Your task to perform on an android device: stop showing notifications on the lock screen Image 0: 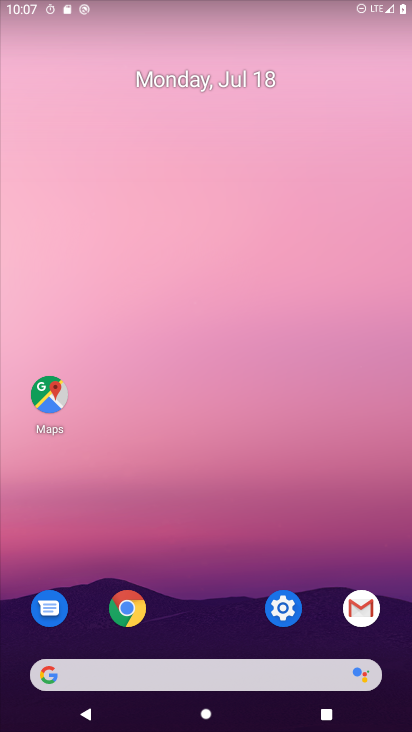
Step 0: click (285, 615)
Your task to perform on an android device: stop showing notifications on the lock screen Image 1: 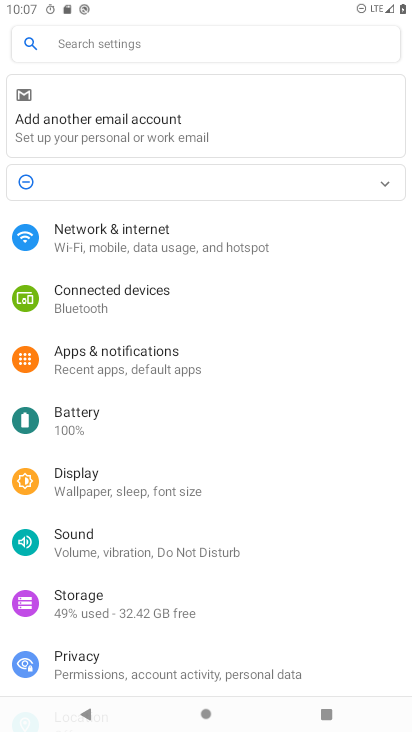
Step 1: click (173, 49)
Your task to perform on an android device: stop showing notifications on the lock screen Image 2: 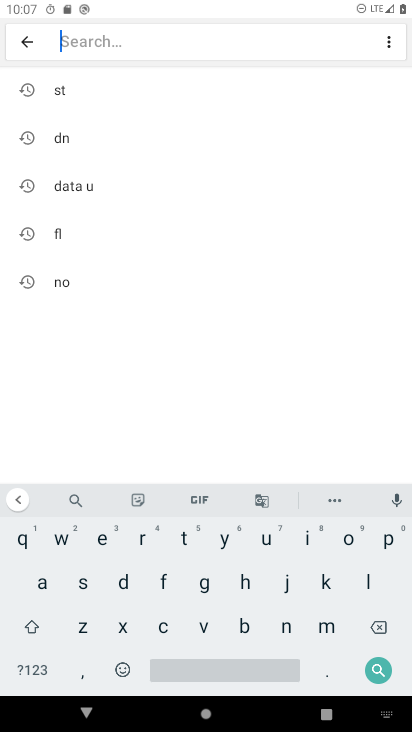
Step 2: click (98, 283)
Your task to perform on an android device: stop showing notifications on the lock screen Image 3: 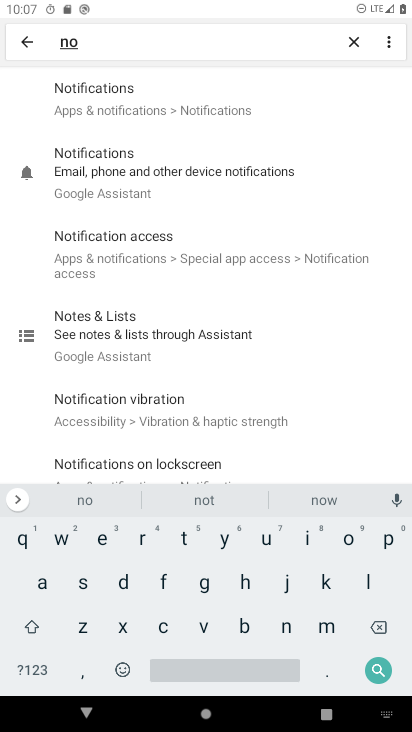
Step 3: click (163, 106)
Your task to perform on an android device: stop showing notifications on the lock screen Image 4: 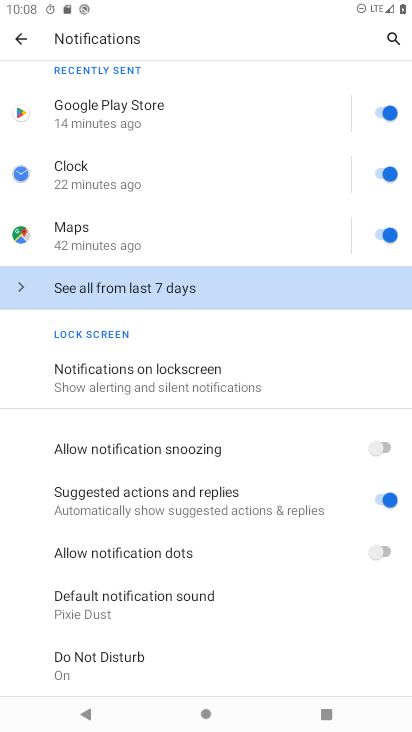
Step 4: click (141, 368)
Your task to perform on an android device: stop showing notifications on the lock screen Image 5: 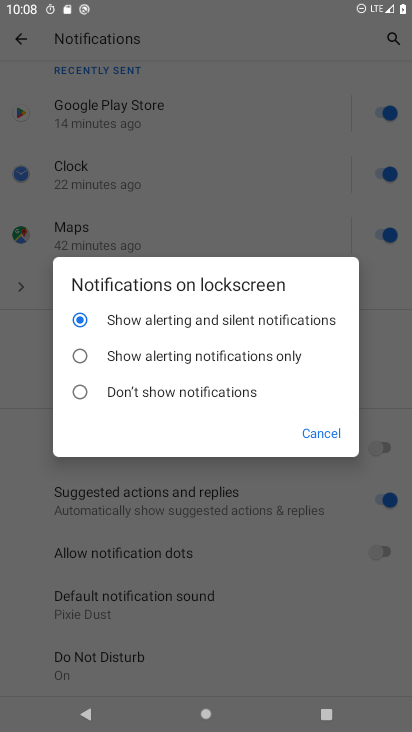
Step 5: click (142, 392)
Your task to perform on an android device: stop showing notifications on the lock screen Image 6: 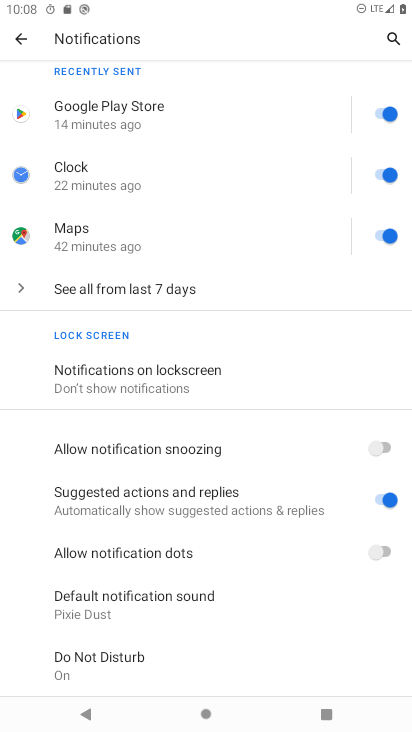
Step 6: click (119, 384)
Your task to perform on an android device: stop showing notifications on the lock screen Image 7: 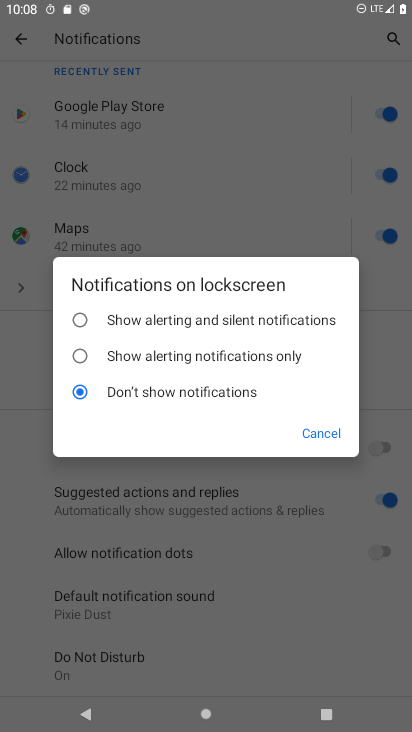
Step 7: task complete